Your task to perform on an android device: install app "eBay: The shopping marketplace" Image 0: 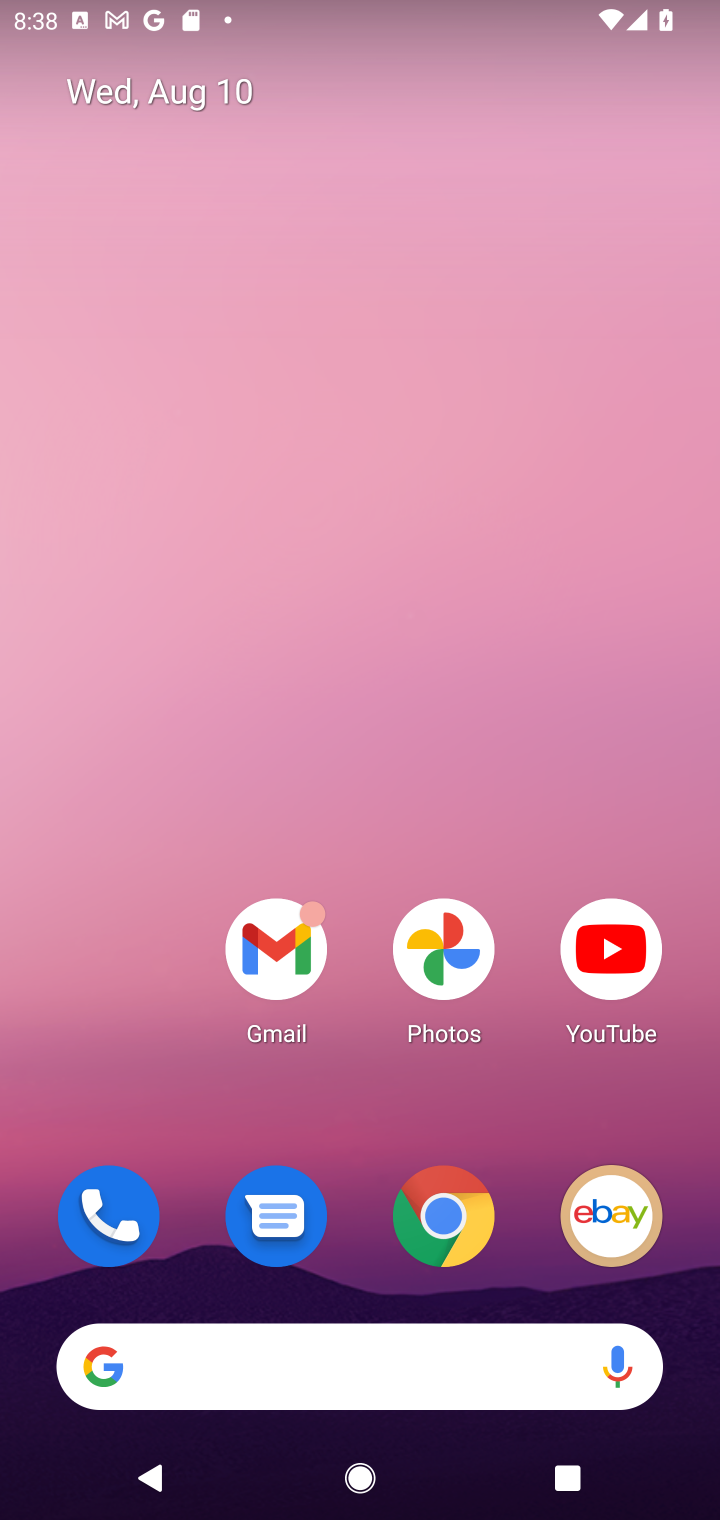
Step 0: drag from (387, 847) to (406, 149)
Your task to perform on an android device: install app "eBay: The shopping marketplace" Image 1: 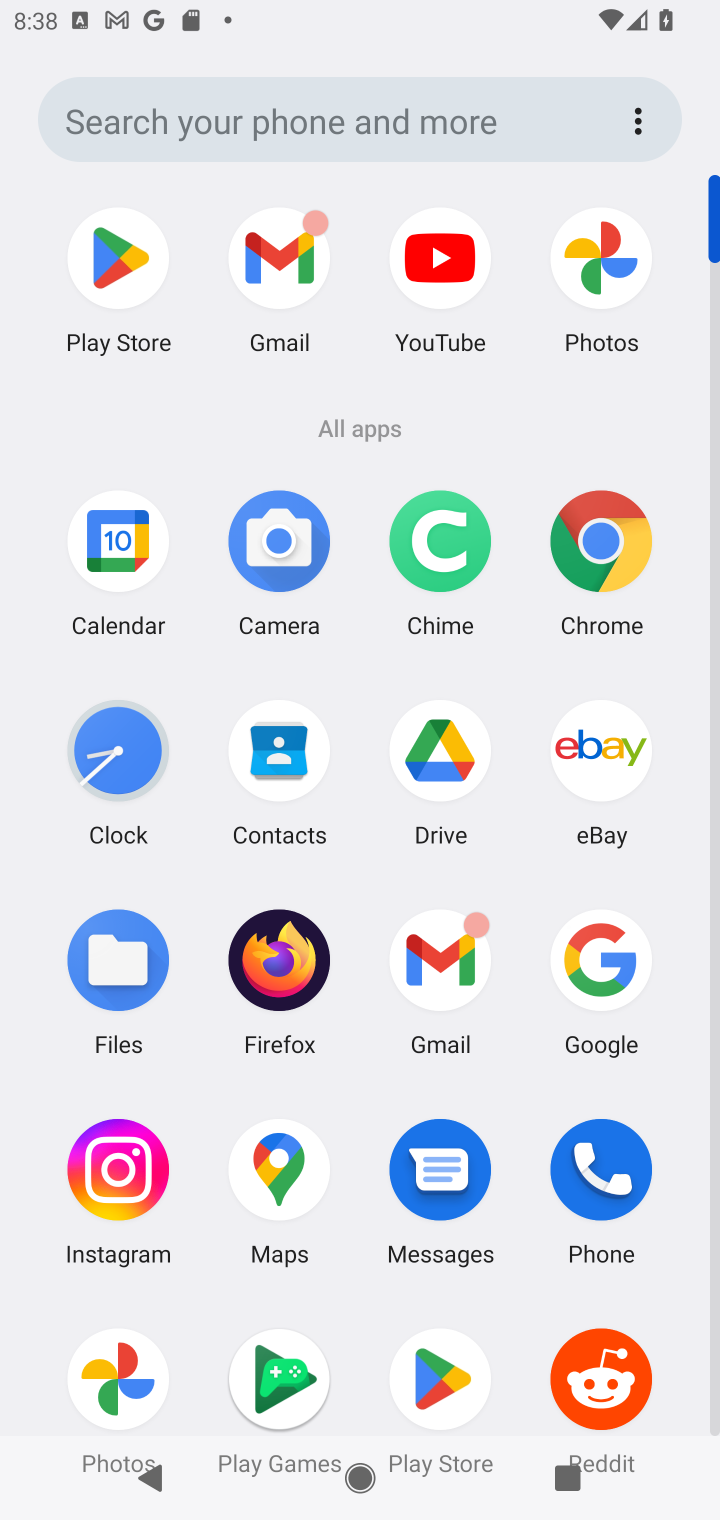
Step 1: click (140, 277)
Your task to perform on an android device: install app "eBay: The shopping marketplace" Image 2: 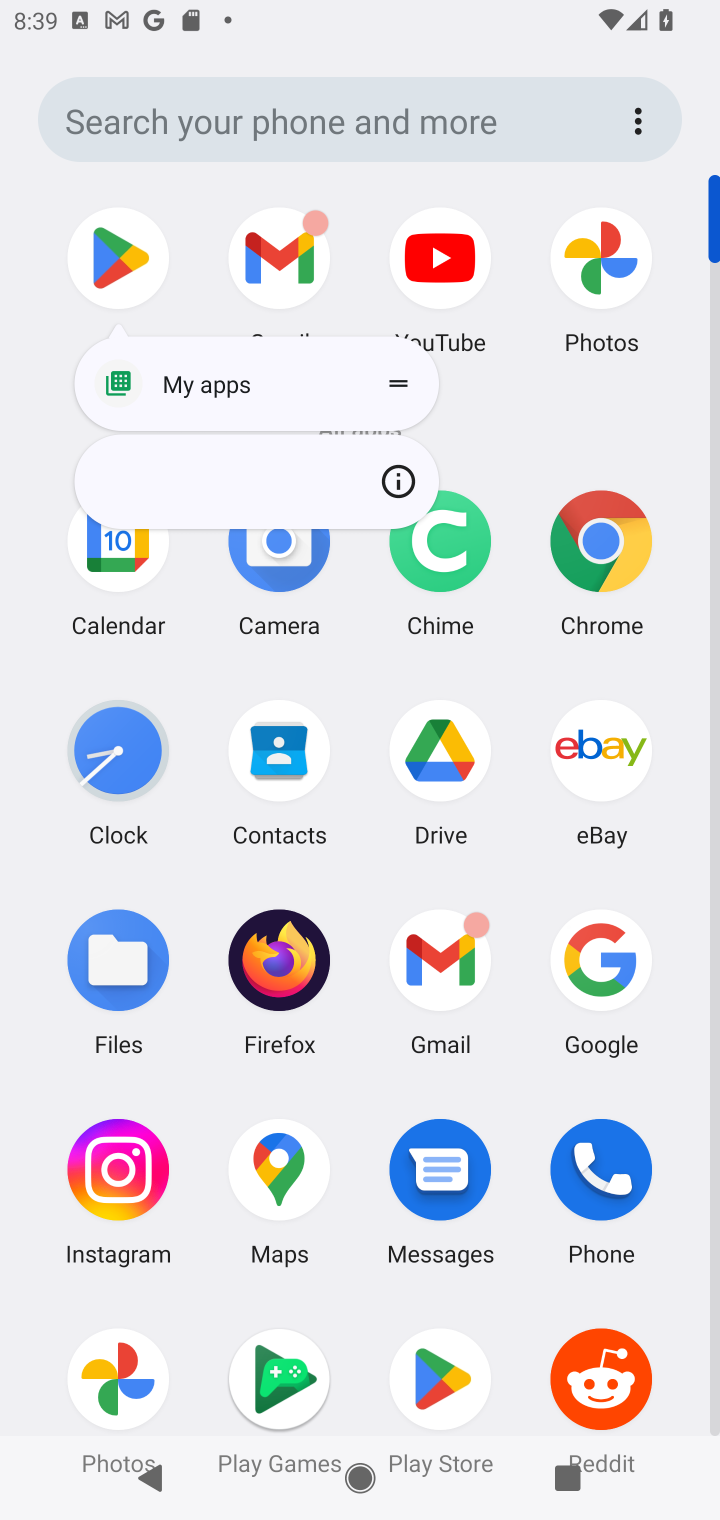
Step 2: click (125, 267)
Your task to perform on an android device: install app "eBay: The shopping marketplace" Image 3: 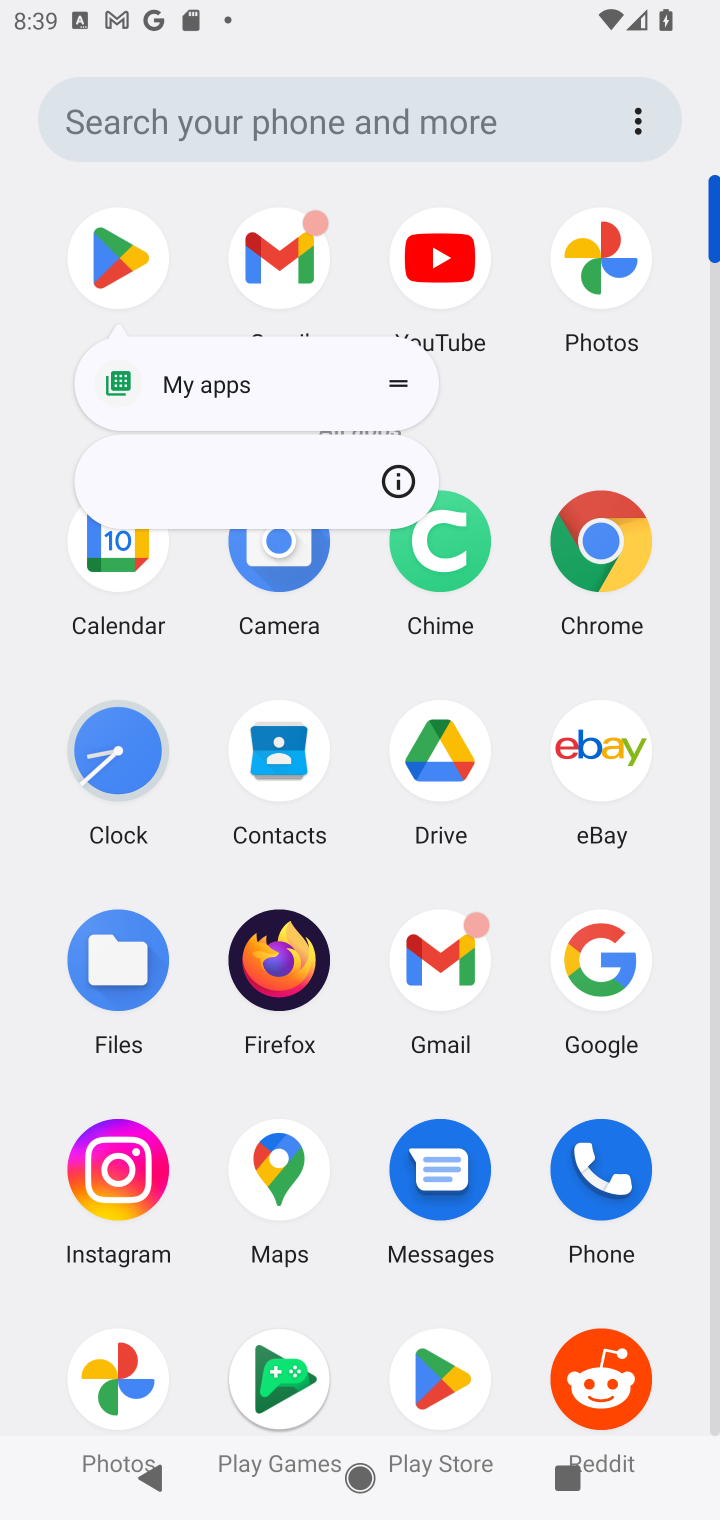
Step 3: click (125, 267)
Your task to perform on an android device: install app "eBay: The shopping marketplace" Image 4: 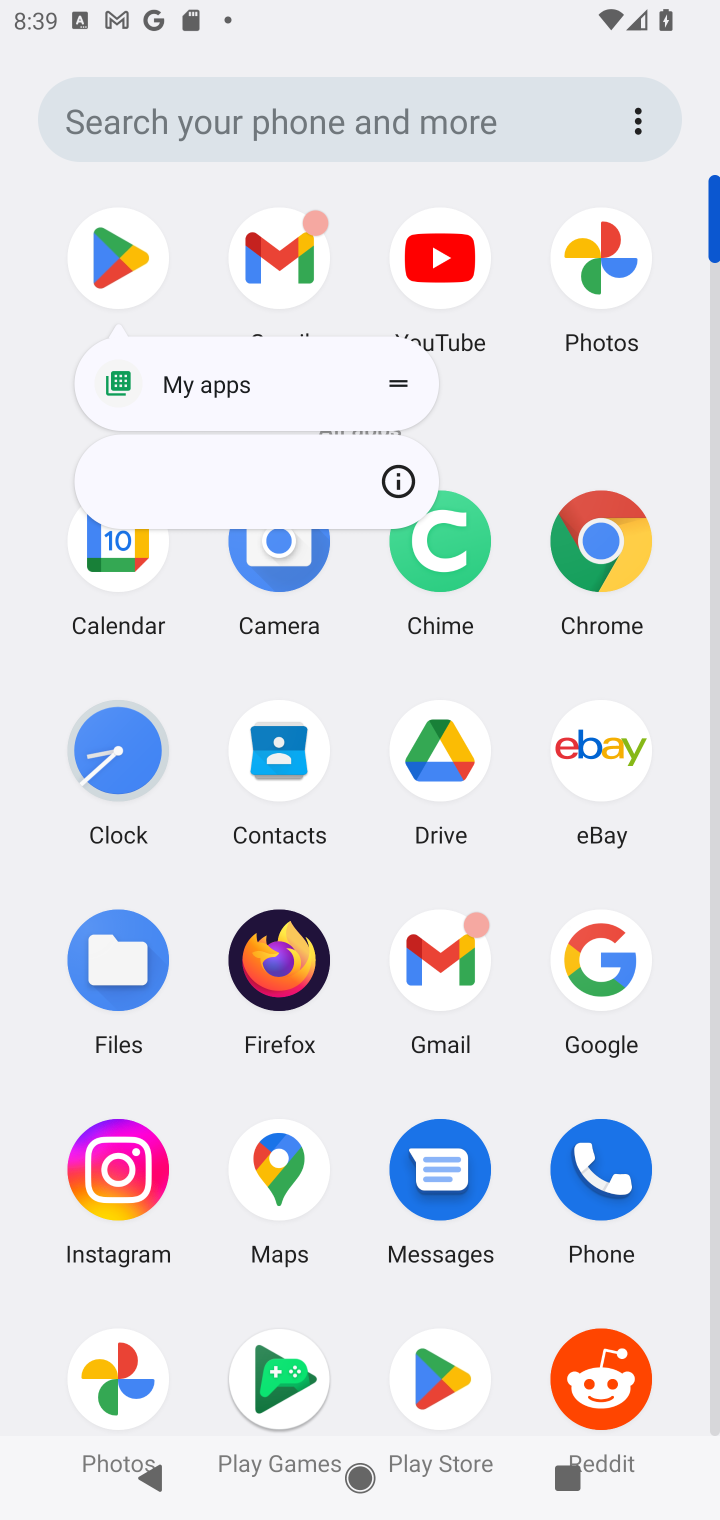
Step 4: click (153, 265)
Your task to perform on an android device: install app "eBay: The shopping marketplace" Image 5: 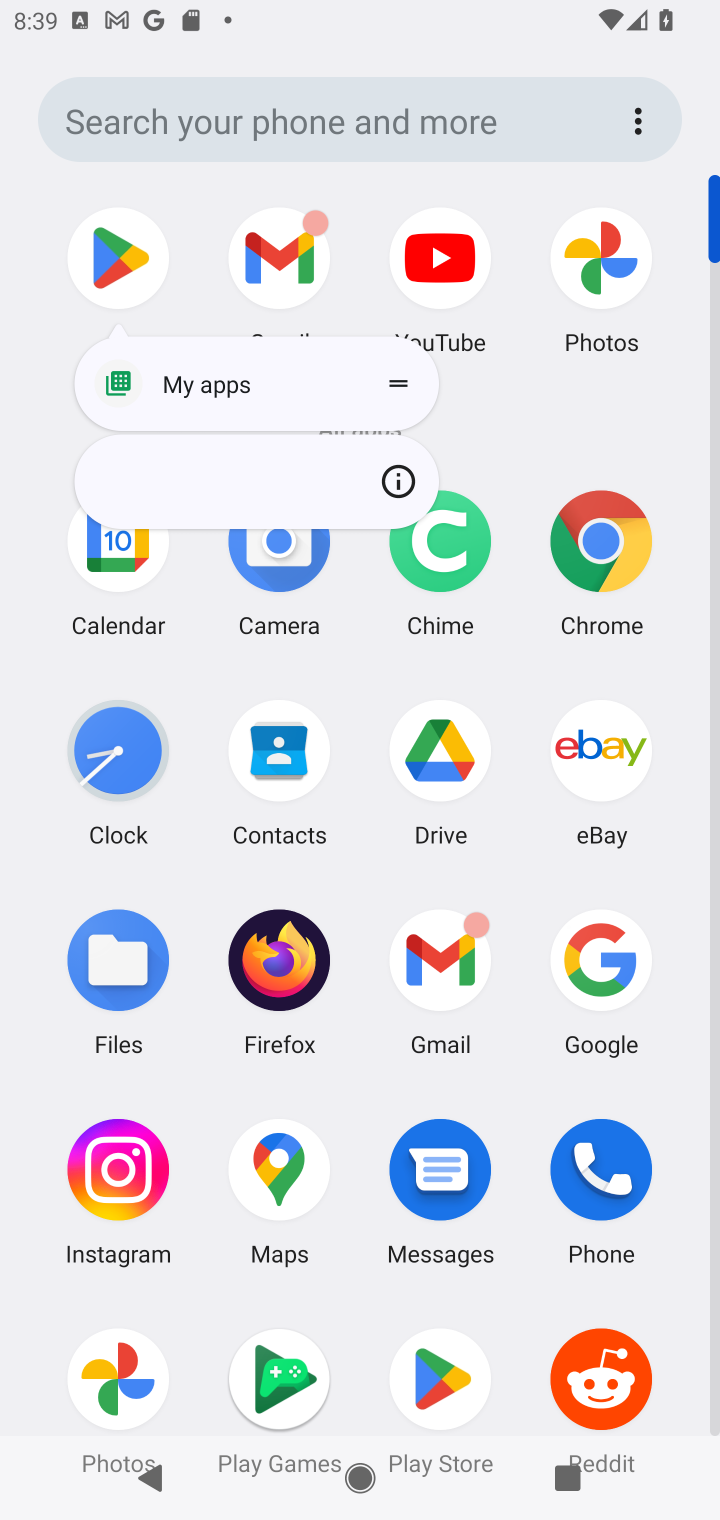
Step 5: click (115, 261)
Your task to perform on an android device: install app "eBay: The shopping marketplace" Image 6: 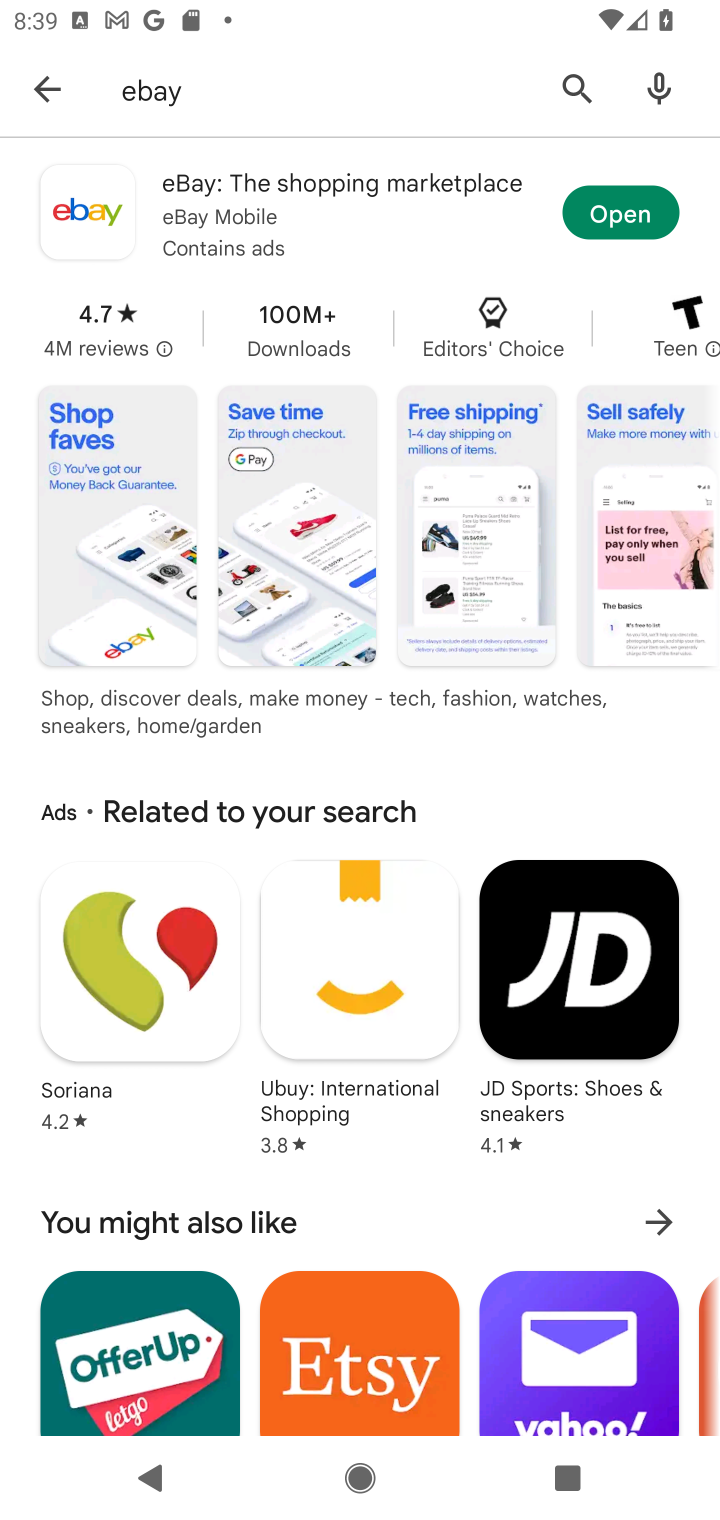
Step 6: click (623, 192)
Your task to perform on an android device: install app "eBay: The shopping marketplace" Image 7: 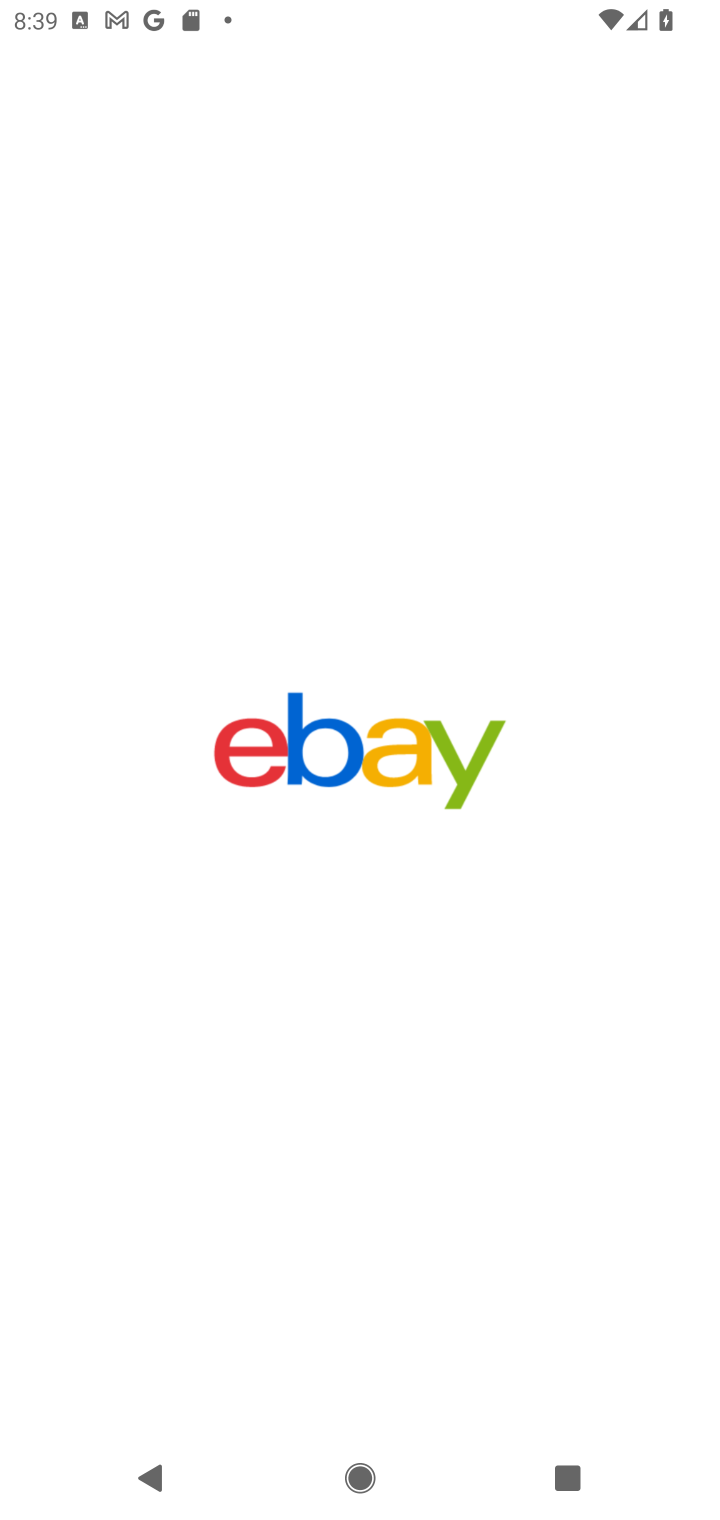
Step 7: task complete